Your task to perform on an android device: install app "Roku - Official Remote Control" Image 0: 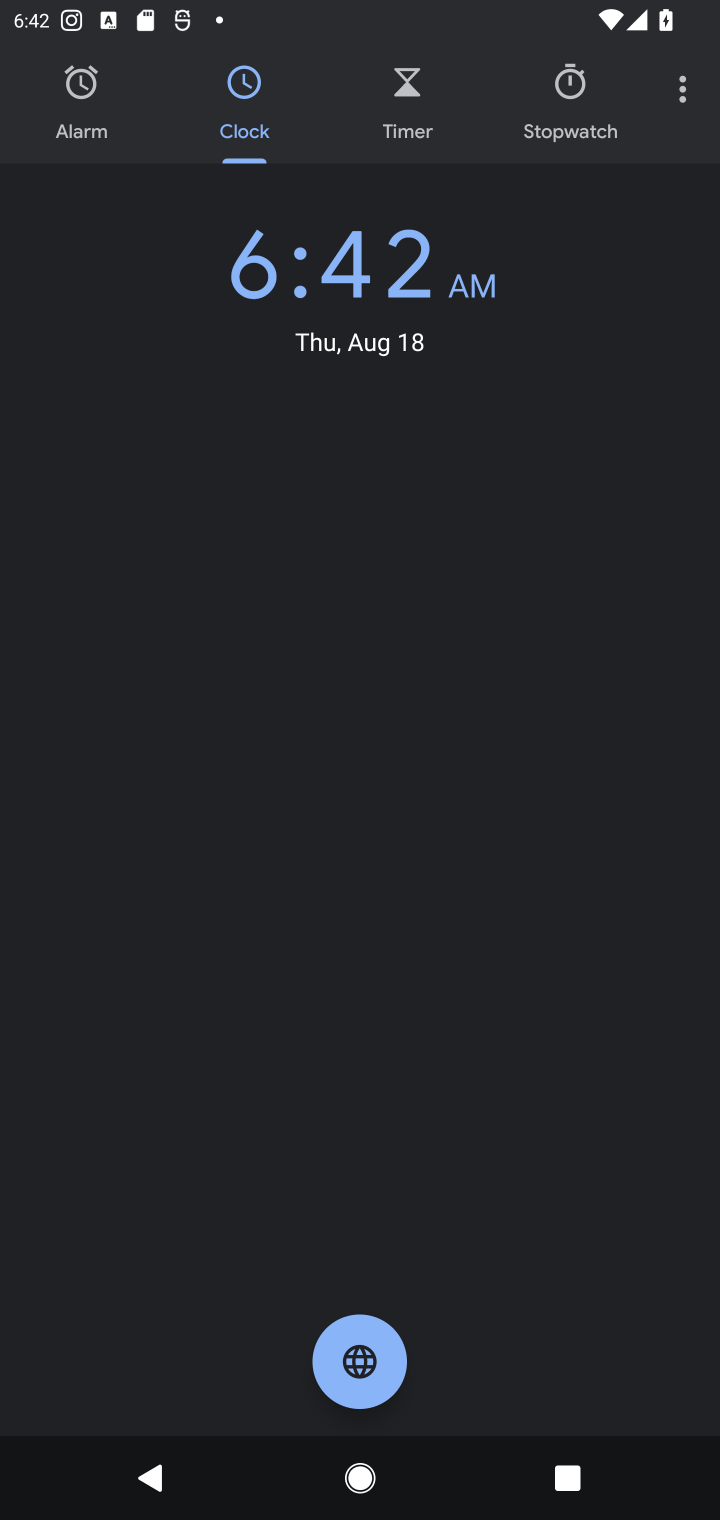
Step 0: press home button
Your task to perform on an android device: install app "Roku - Official Remote Control" Image 1: 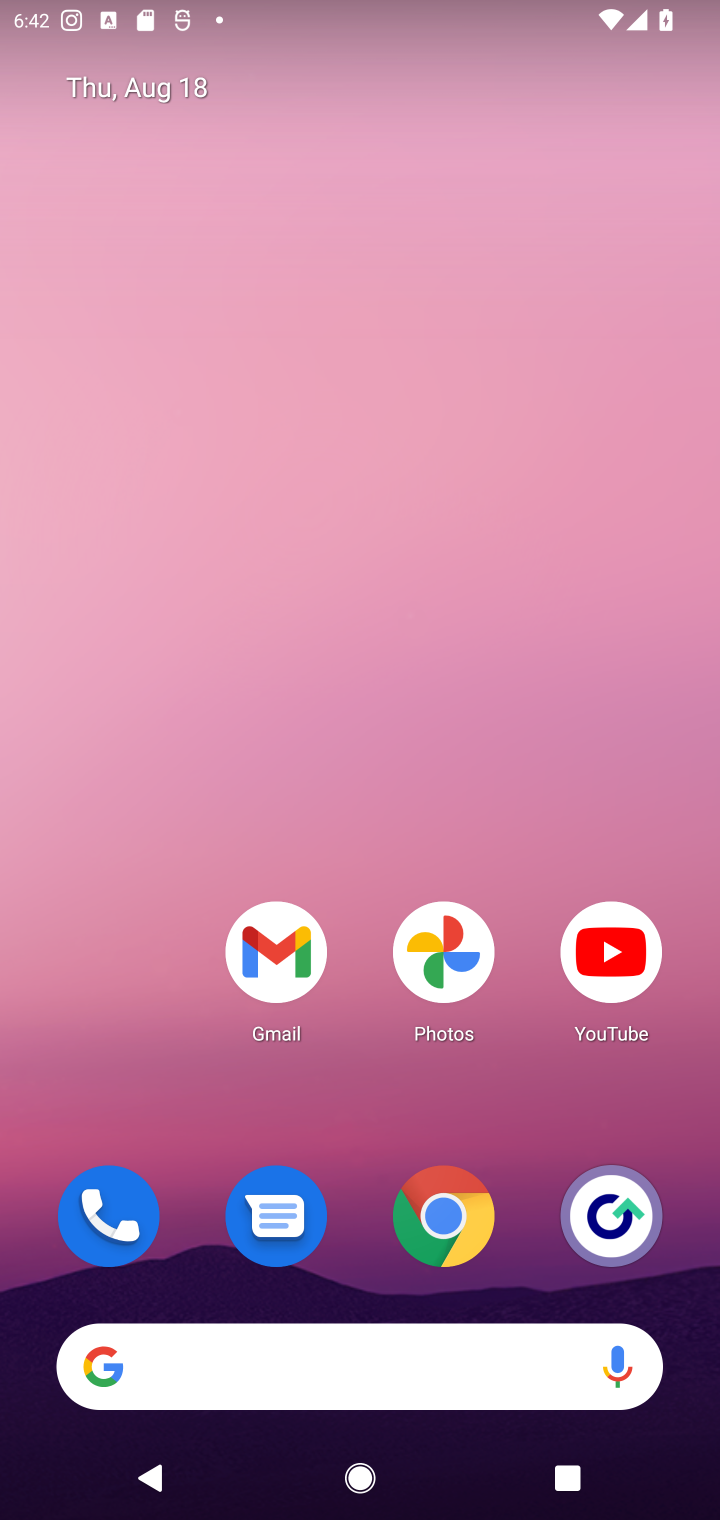
Step 1: drag from (406, 915) to (428, 375)
Your task to perform on an android device: install app "Roku - Official Remote Control" Image 2: 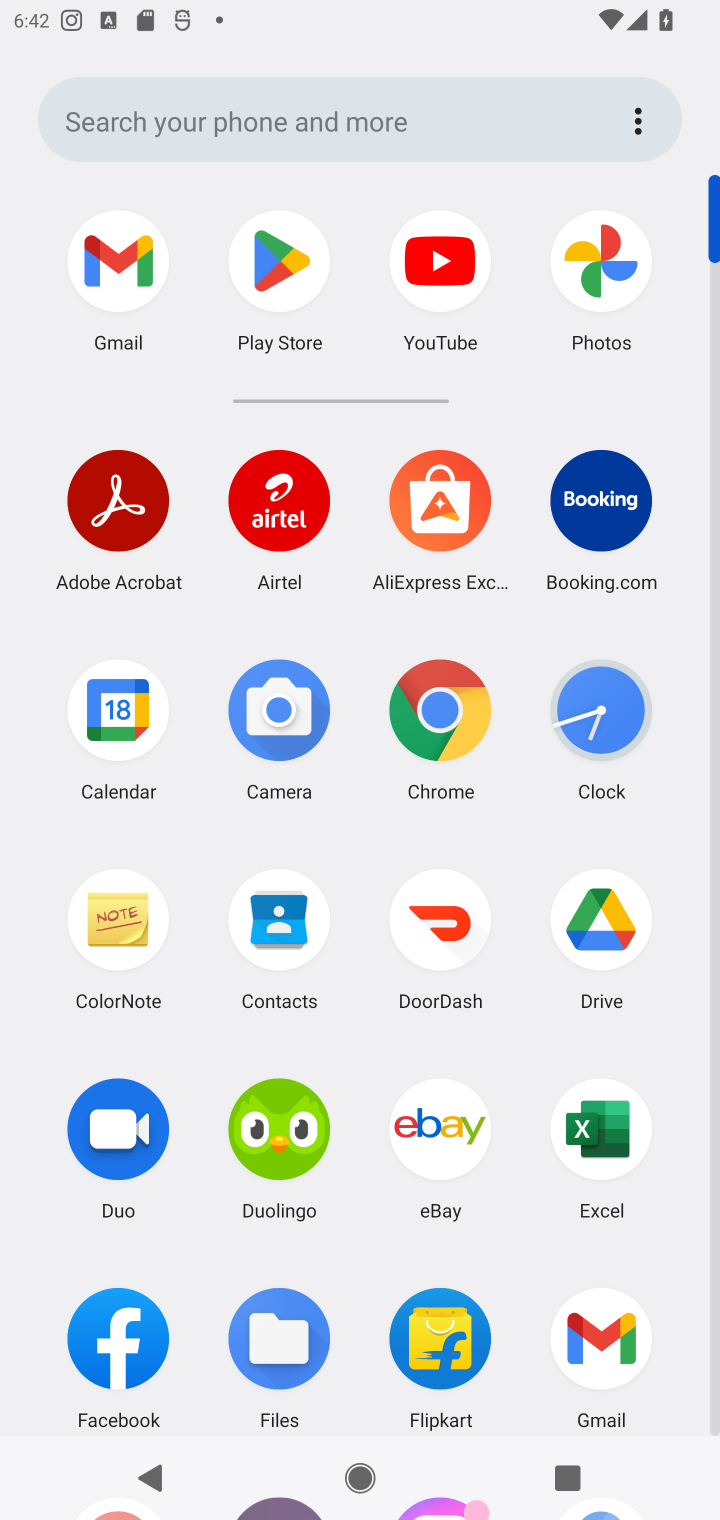
Step 2: click (294, 253)
Your task to perform on an android device: install app "Roku - Official Remote Control" Image 3: 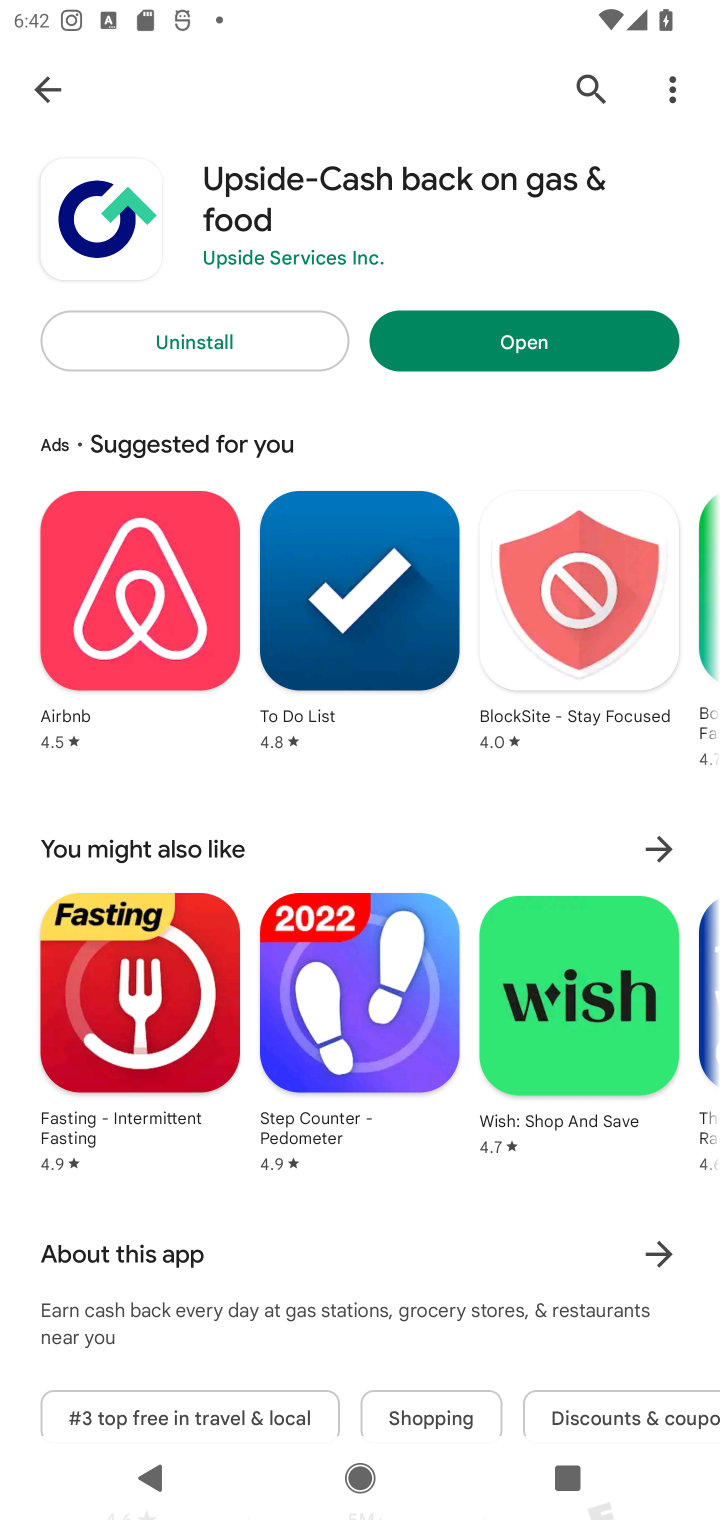
Step 3: click (598, 87)
Your task to perform on an android device: install app "Roku - Official Remote Control" Image 4: 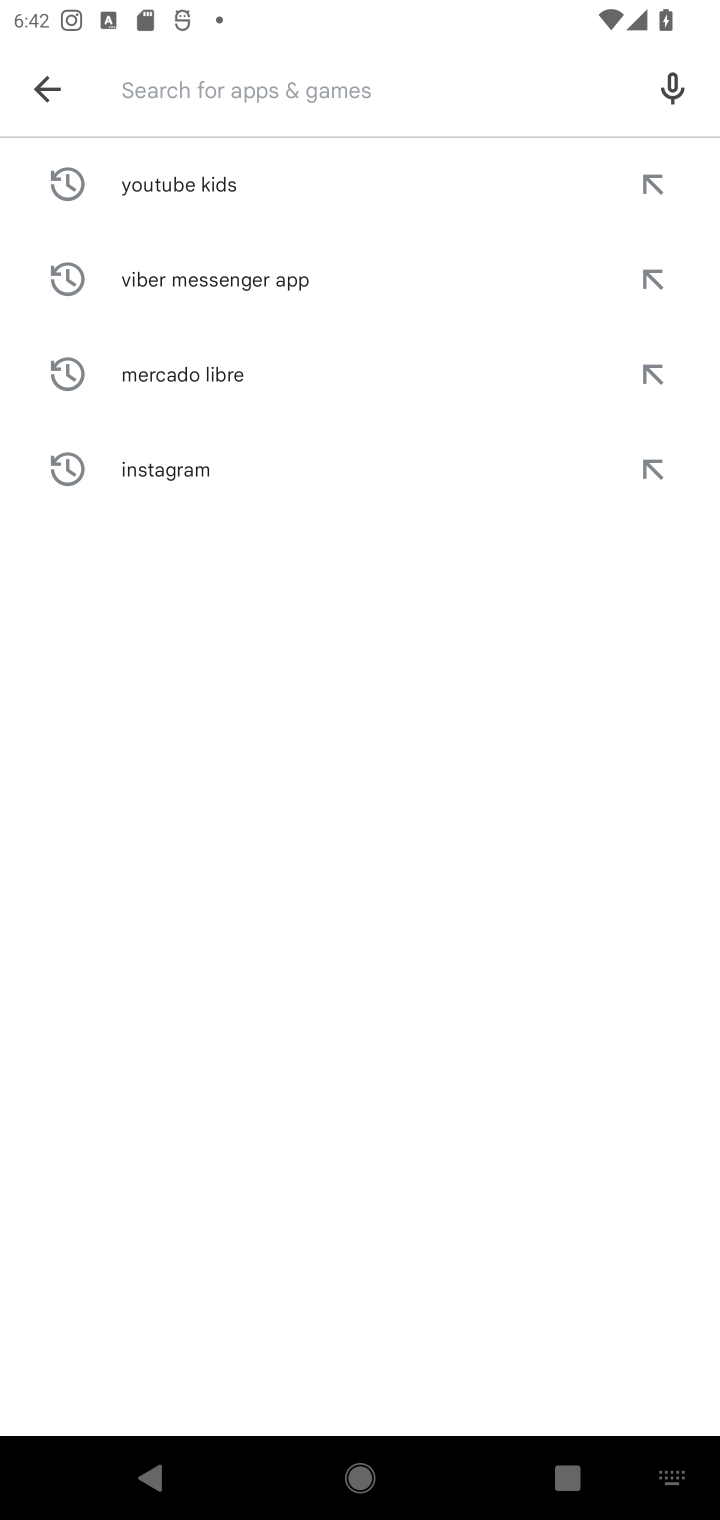
Step 4: type "Roku - Official Remote Control"
Your task to perform on an android device: install app "Roku - Official Remote Control" Image 5: 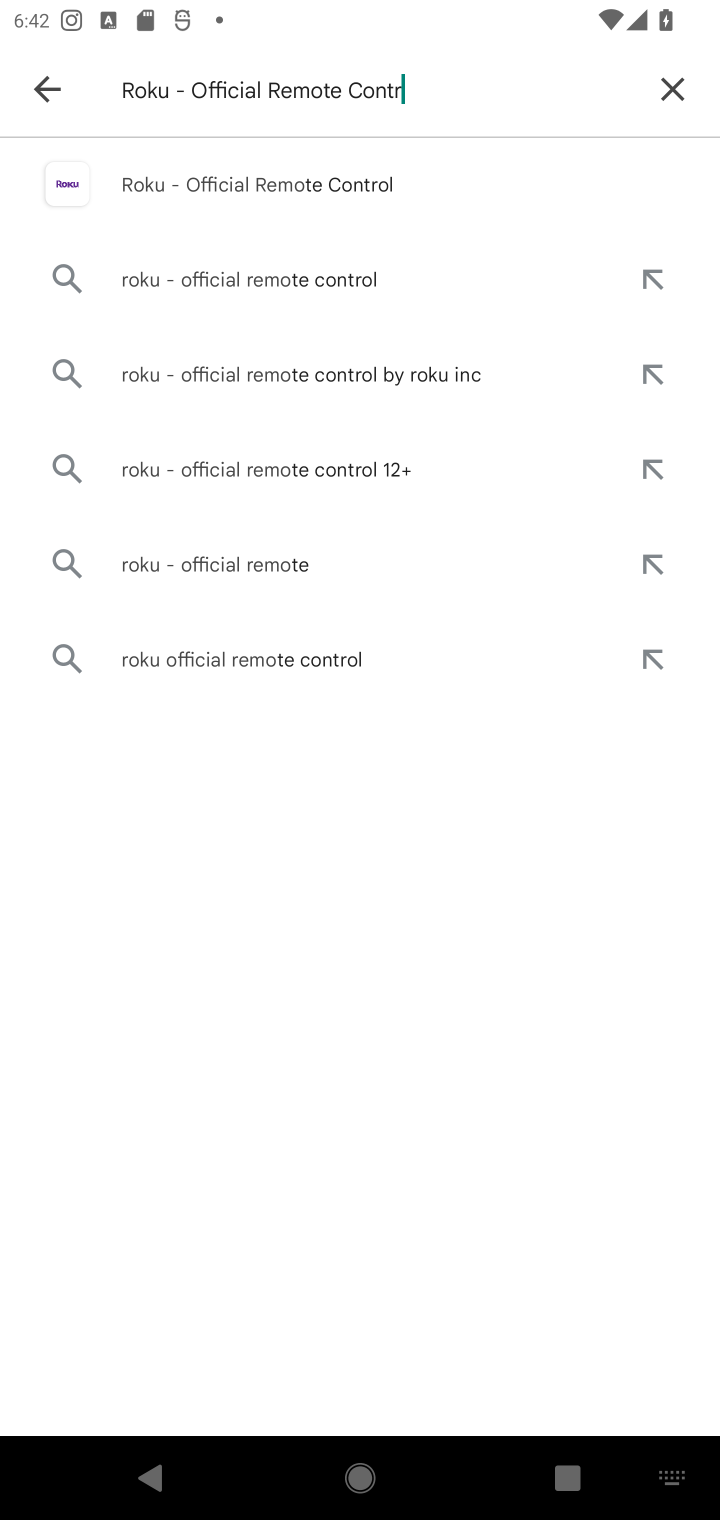
Step 5: type ""
Your task to perform on an android device: install app "Roku - Official Remote Control" Image 6: 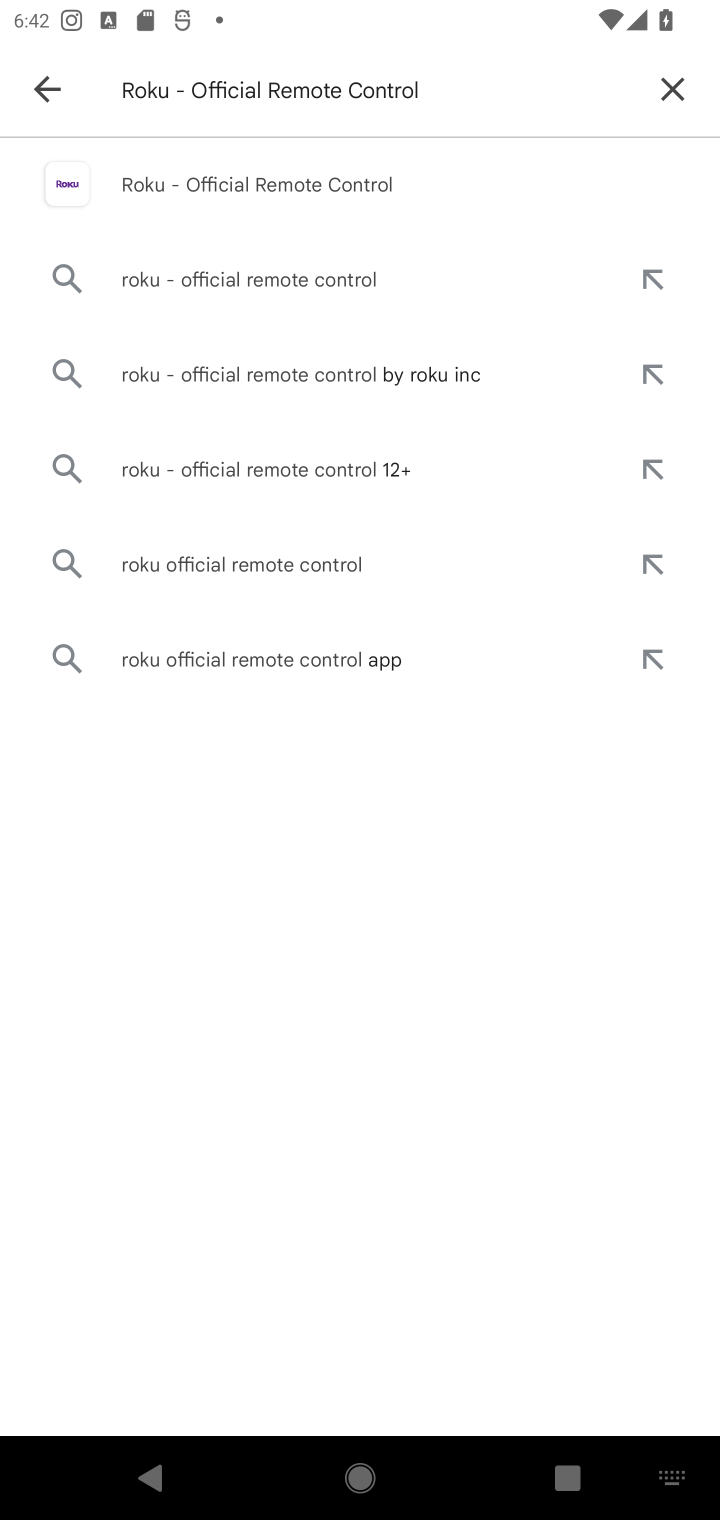
Step 6: click (379, 178)
Your task to perform on an android device: install app "Roku - Official Remote Control" Image 7: 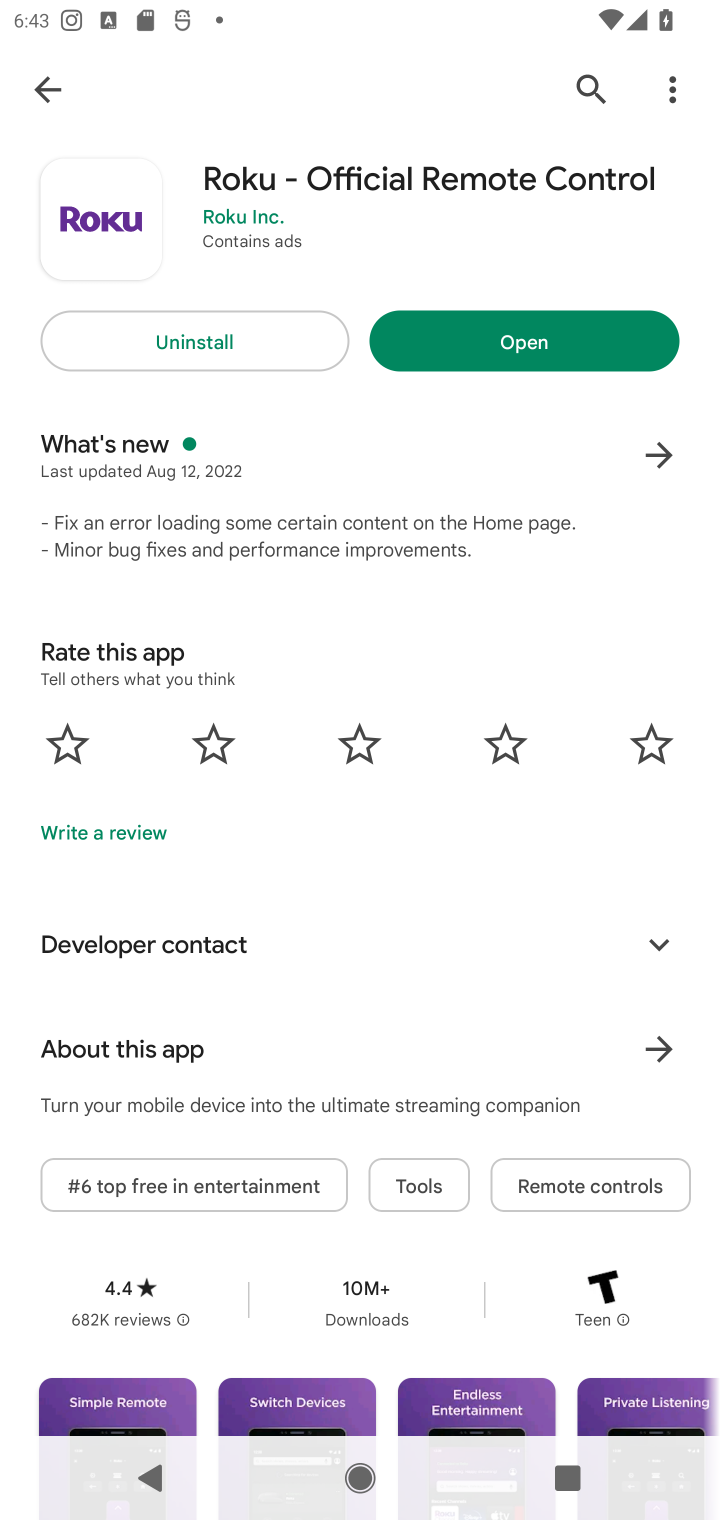
Step 7: task complete